Your task to perform on an android device: visit the assistant section in the google photos Image 0: 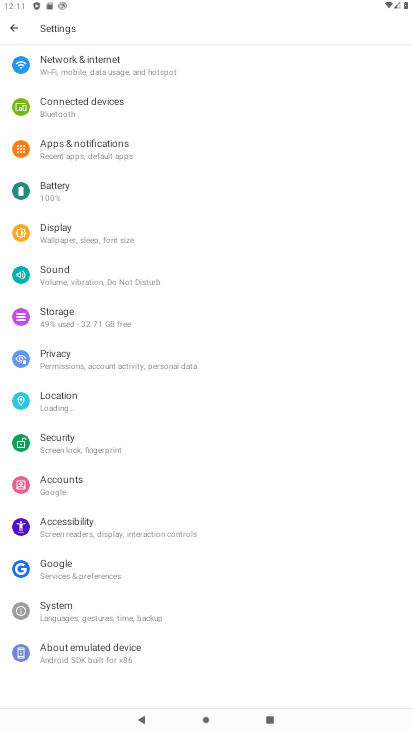
Step 0: press home button
Your task to perform on an android device: visit the assistant section in the google photos Image 1: 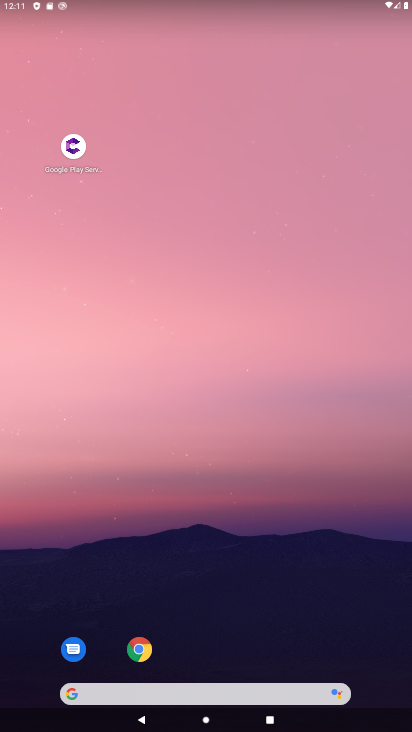
Step 1: drag from (189, 655) to (223, 51)
Your task to perform on an android device: visit the assistant section in the google photos Image 2: 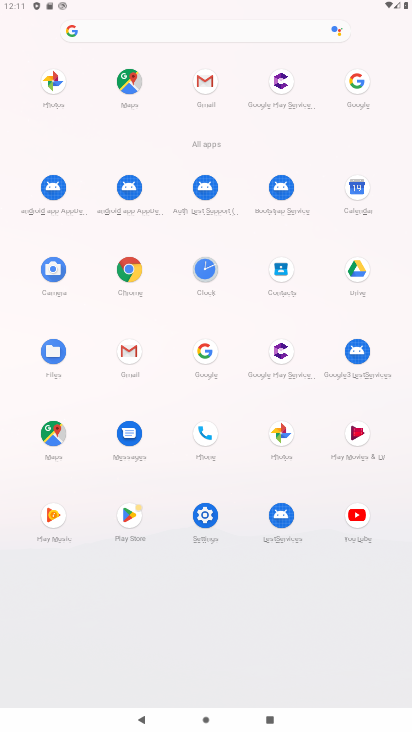
Step 2: click (279, 435)
Your task to perform on an android device: visit the assistant section in the google photos Image 3: 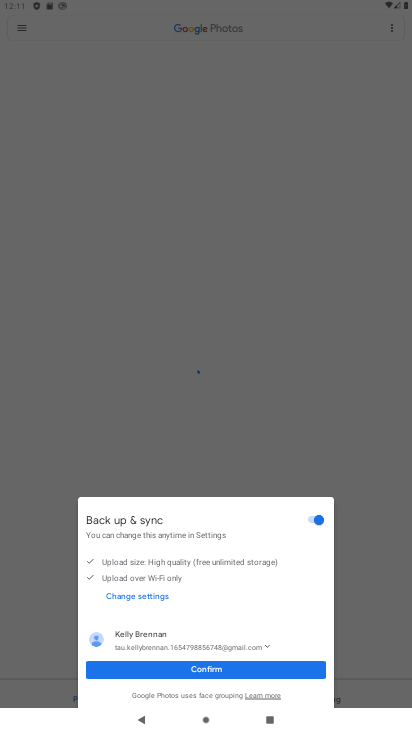
Step 3: click (201, 664)
Your task to perform on an android device: visit the assistant section in the google photos Image 4: 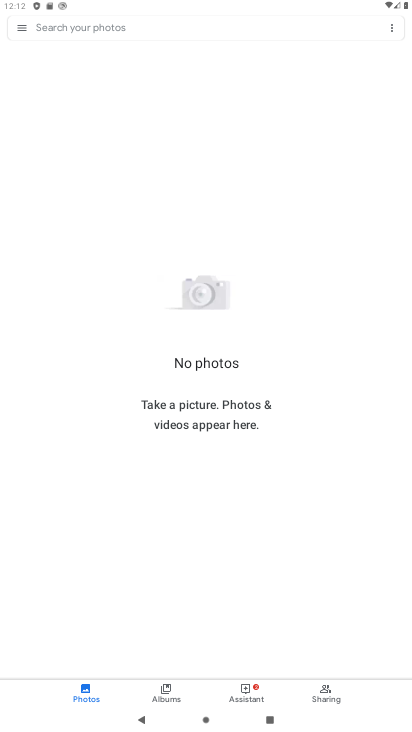
Step 4: click (258, 694)
Your task to perform on an android device: visit the assistant section in the google photos Image 5: 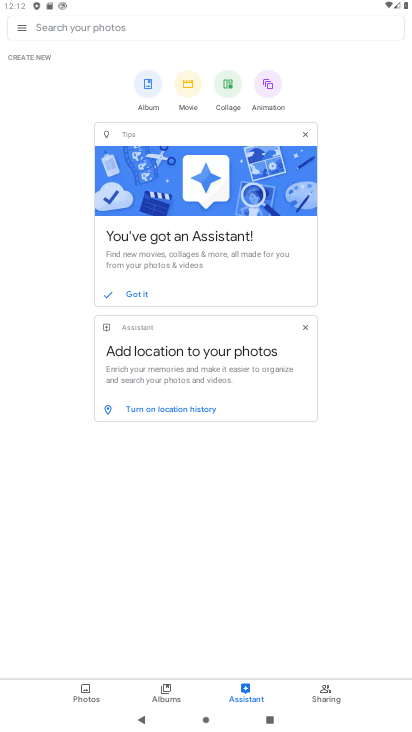
Step 5: task complete